Your task to perform on an android device: turn on the 24-hour format for clock Image 0: 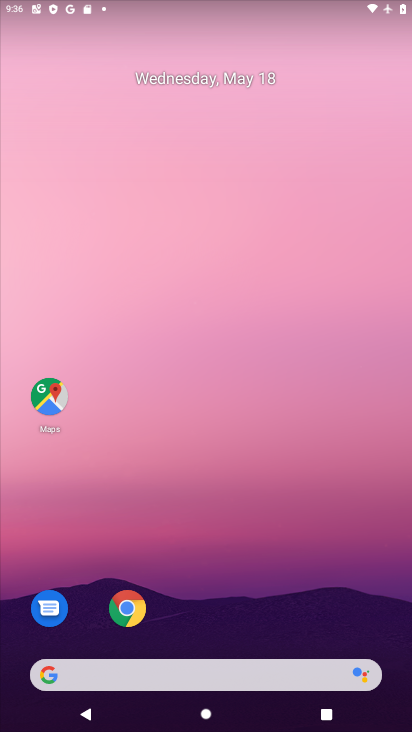
Step 0: drag from (315, 572) to (291, 151)
Your task to perform on an android device: turn on the 24-hour format for clock Image 1: 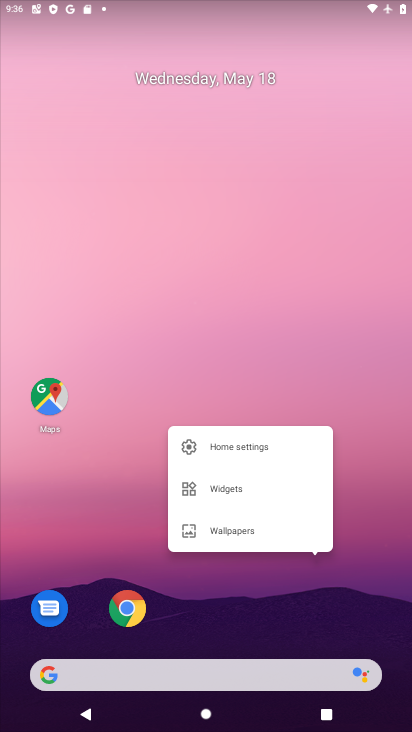
Step 1: click (290, 286)
Your task to perform on an android device: turn on the 24-hour format for clock Image 2: 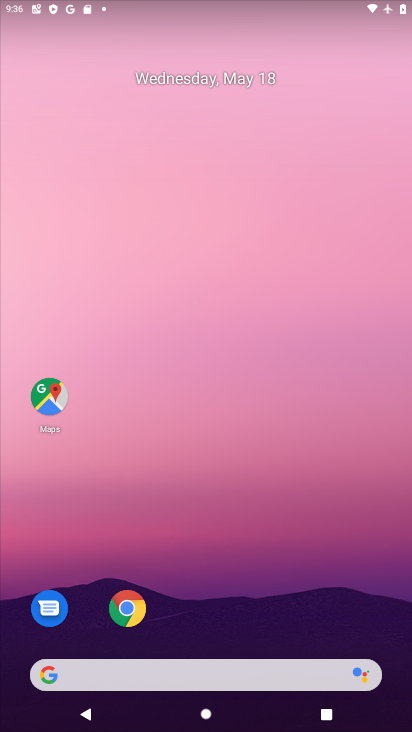
Step 2: drag from (248, 576) to (222, 22)
Your task to perform on an android device: turn on the 24-hour format for clock Image 3: 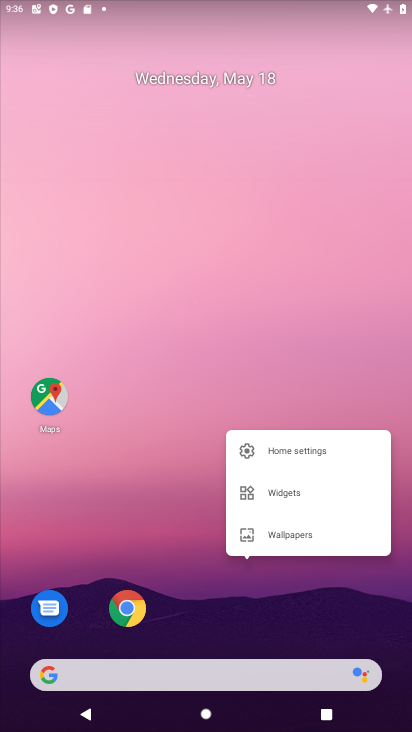
Step 3: click (155, 439)
Your task to perform on an android device: turn on the 24-hour format for clock Image 4: 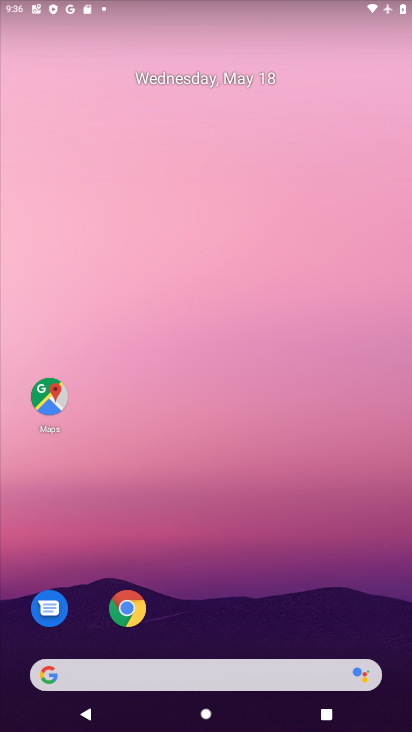
Step 4: drag from (256, 591) to (203, 0)
Your task to perform on an android device: turn on the 24-hour format for clock Image 5: 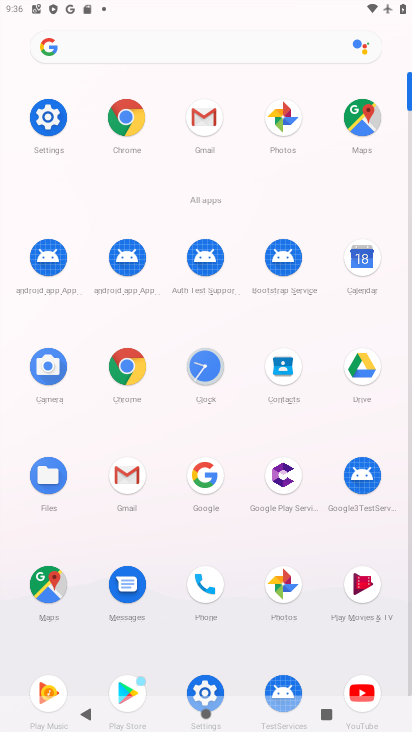
Step 5: click (54, 133)
Your task to perform on an android device: turn on the 24-hour format for clock Image 6: 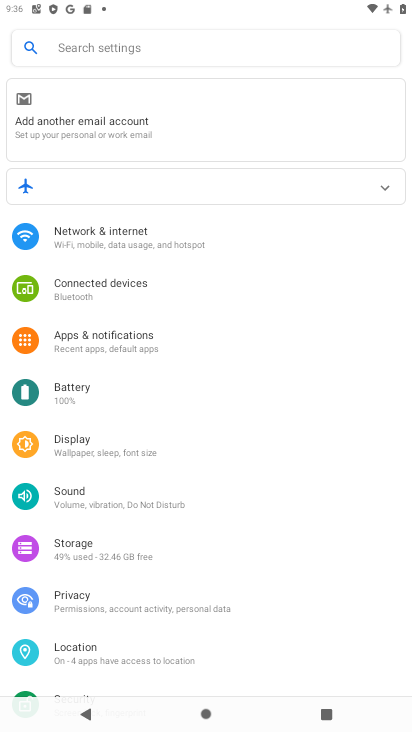
Step 6: press home button
Your task to perform on an android device: turn on the 24-hour format for clock Image 7: 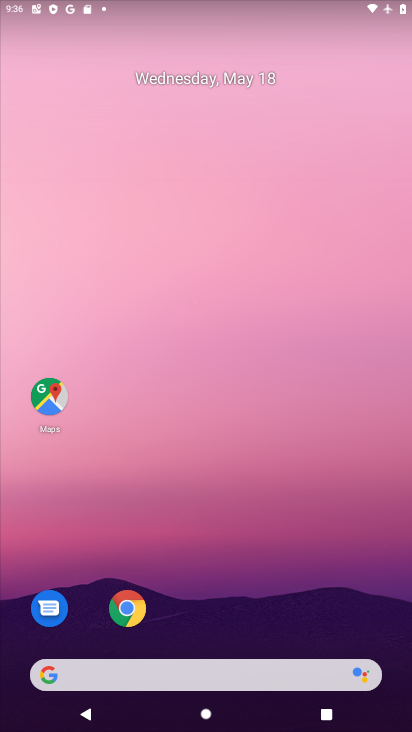
Step 7: drag from (288, 591) to (255, 35)
Your task to perform on an android device: turn on the 24-hour format for clock Image 8: 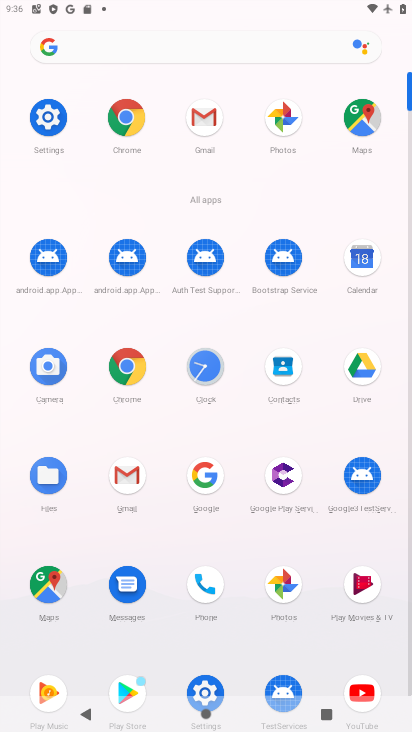
Step 8: click (203, 386)
Your task to perform on an android device: turn on the 24-hour format for clock Image 9: 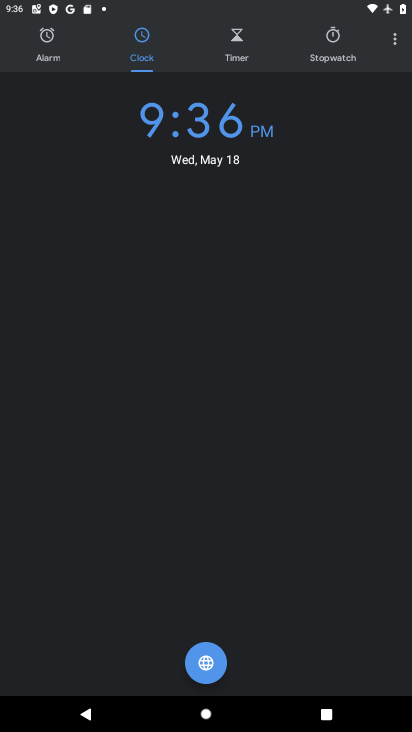
Step 9: click (398, 47)
Your task to perform on an android device: turn on the 24-hour format for clock Image 10: 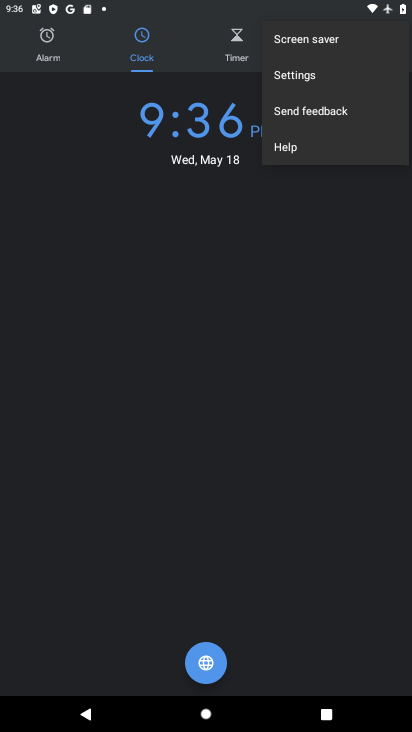
Step 10: click (366, 72)
Your task to perform on an android device: turn on the 24-hour format for clock Image 11: 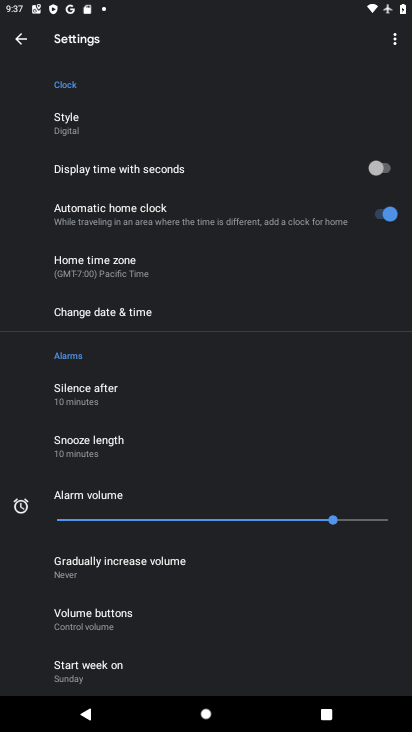
Step 11: drag from (85, 162) to (56, 481)
Your task to perform on an android device: turn on the 24-hour format for clock Image 12: 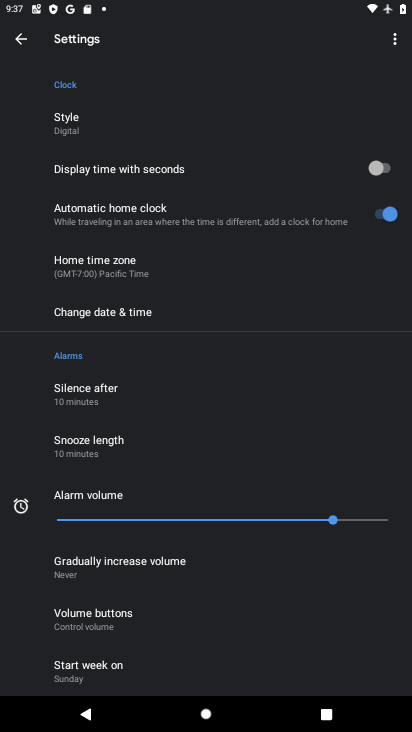
Step 12: click (68, 302)
Your task to perform on an android device: turn on the 24-hour format for clock Image 13: 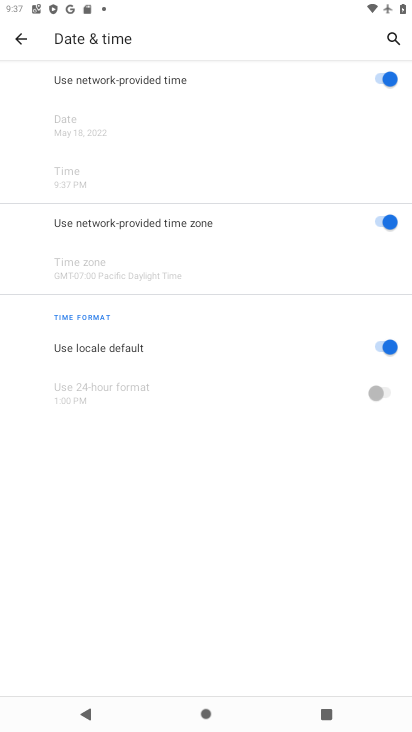
Step 13: click (382, 348)
Your task to perform on an android device: turn on the 24-hour format for clock Image 14: 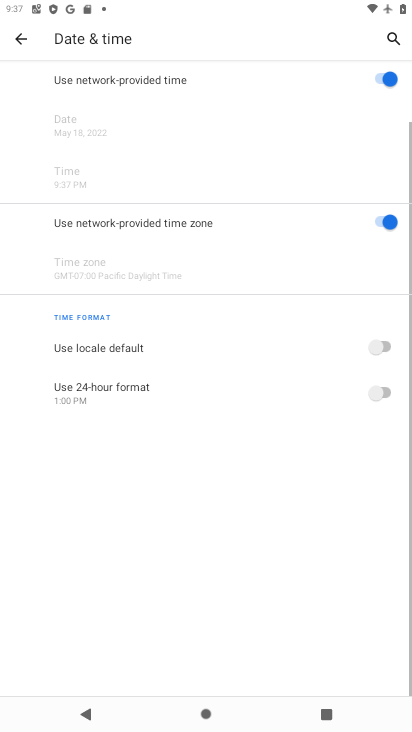
Step 14: click (373, 374)
Your task to perform on an android device: turn on the 24-hour format for clock Image 15: 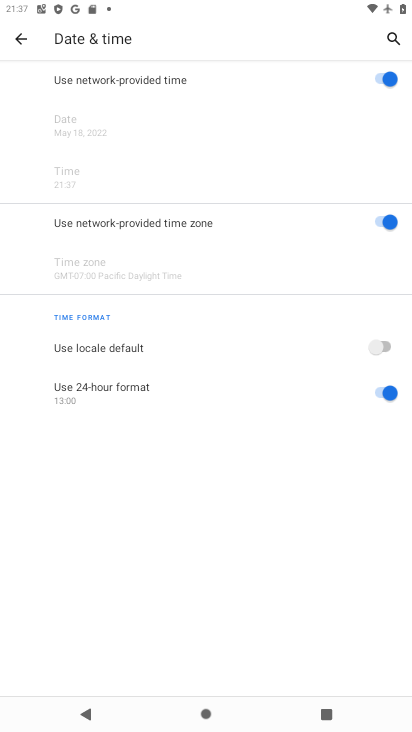
Step 15: task complete